Your task to perform on an android device: set an alarm Image 0: 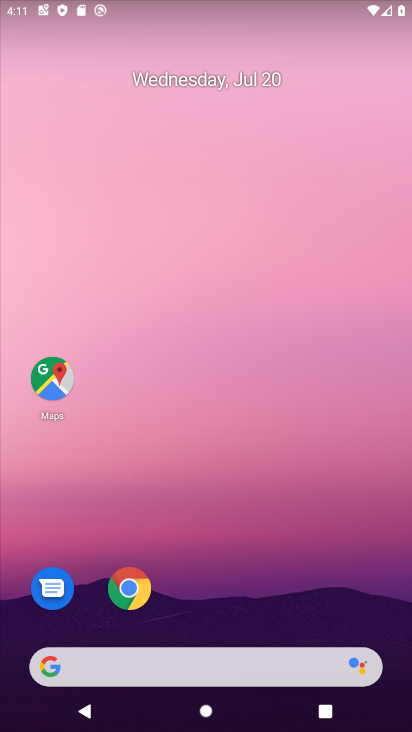
Step 0: drag from (229, 591) to (277, 102)
Your task to perform on an android device: set an alarm Image 1: 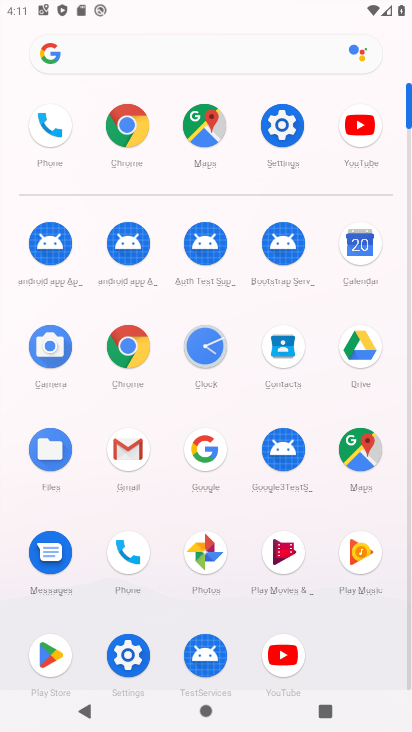
Step 1: click (204, 346)
Your task to perform on an android device: set an alarm Image 2: 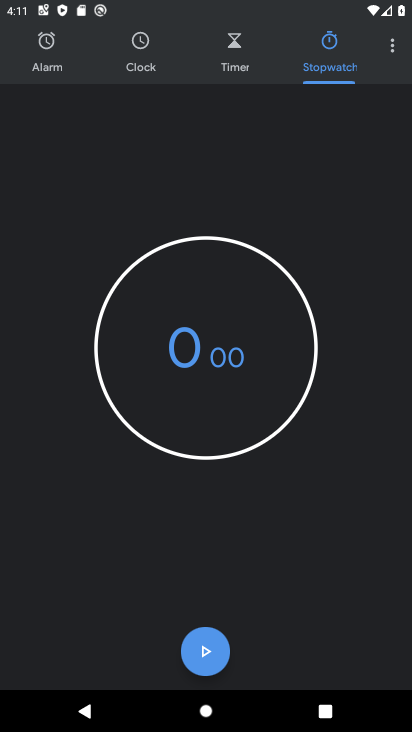
Step 2: click (47, 49)
Your task to perform on an android device: set an alarm Image 3: 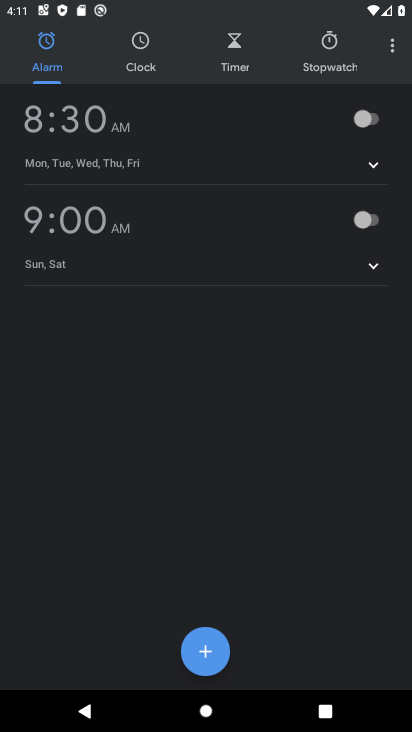
Step 3: click (220, 657)
Your task to perform on an android device: set an alarm Image 4: 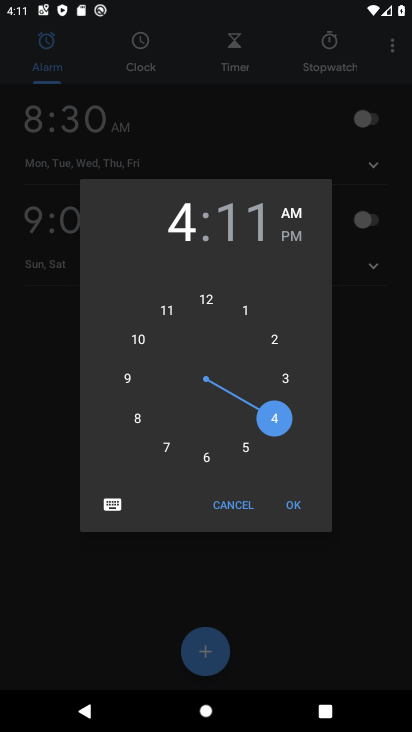
Step 4: click (285, 507)
Your task to perform on an android device: set an alarm Image 5: 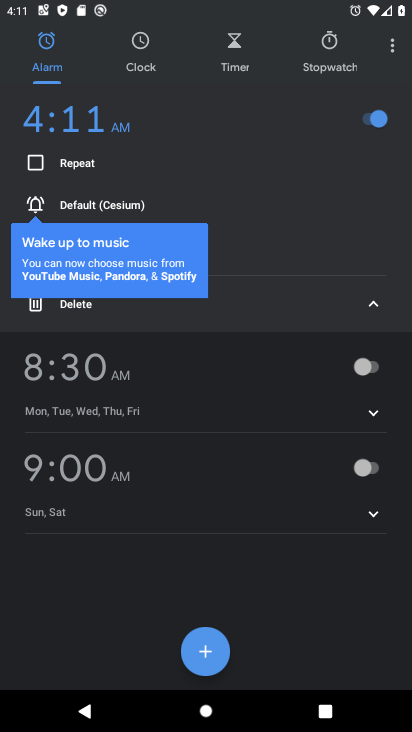
Step 5: task complete